Your task to perform on an android device: clear all cookies in the chrome app Image 0: 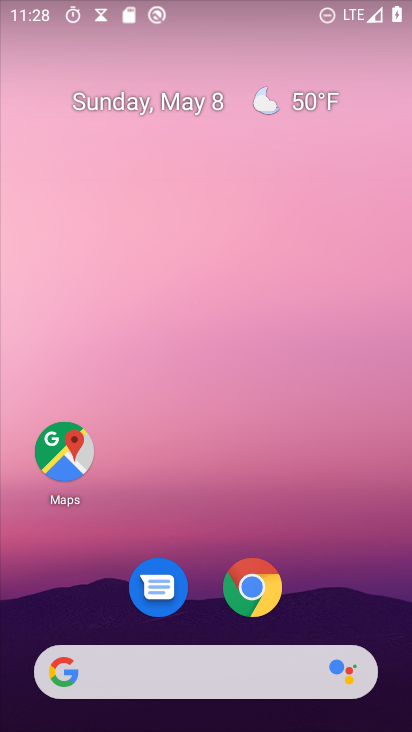
Step 0: click (256, 594)
Your task to perform on an android device: clear all cookies in the chrome app Image 1: 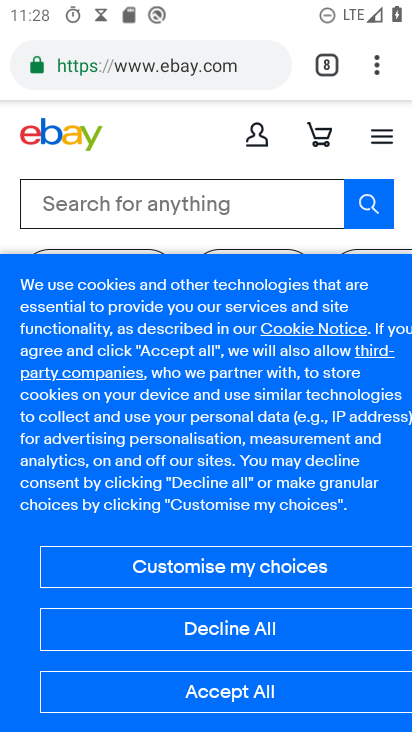
Step 1: drag from (376, 62) to (155, 364)
Your task to perform on an android device: clear all cookies in the chrome app Image 2: 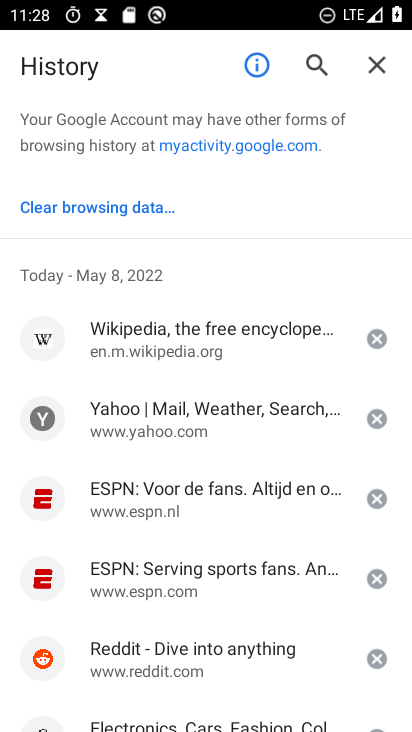
Step 2: click (85, 199)
Your task to perform on an android device: clear all cookies in the chrome app Image 3: 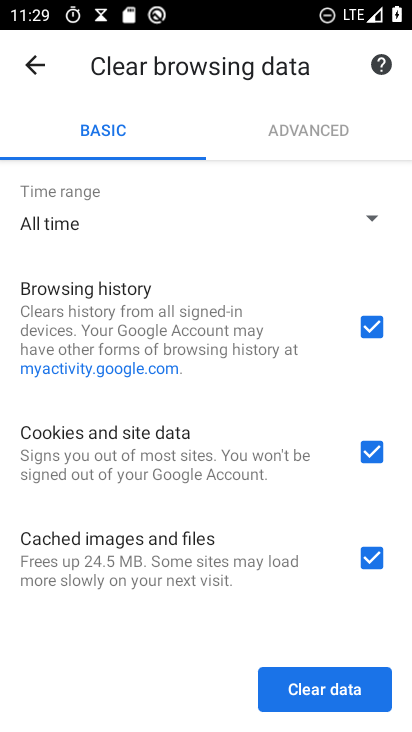
Step 3: click (361, 318)
Your task to perform on an android device: clear all cookies in the chrome app Image 4: 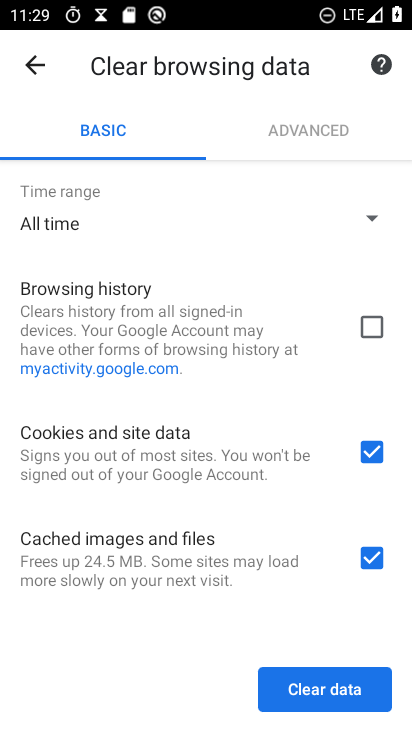
Step 4: click (380, 563)
Your task to perform on an android device: clear all cookies in the chrome app Image 5: 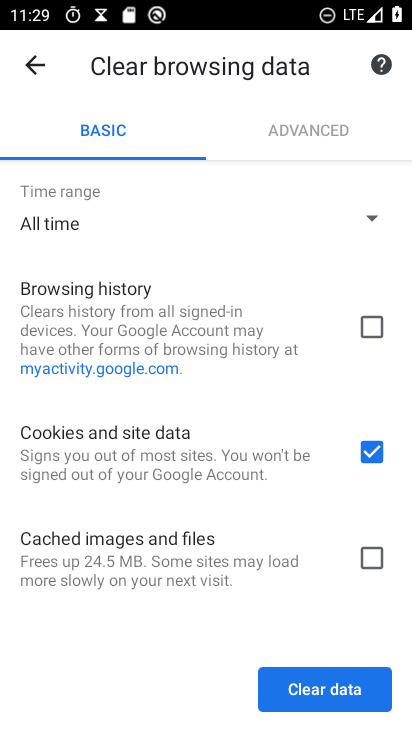
Step 5: click (318, 691)
Your task to perform on an android device: clear all cookies in the chrome app Image 6: 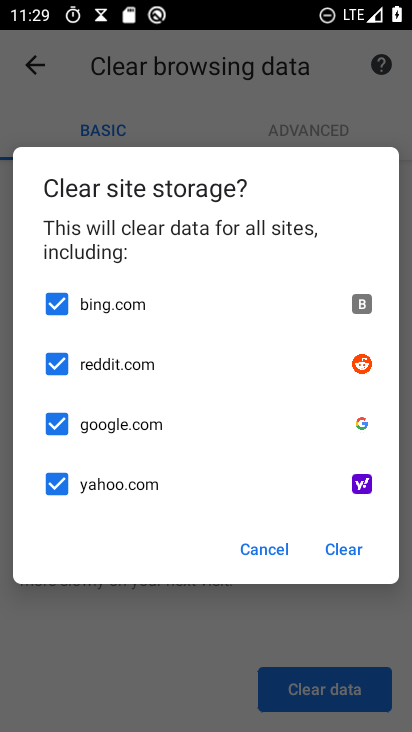
Step 6: click (342, 547)
Your task to perform on an android device: clear all cookies in the chrome app Image 7: 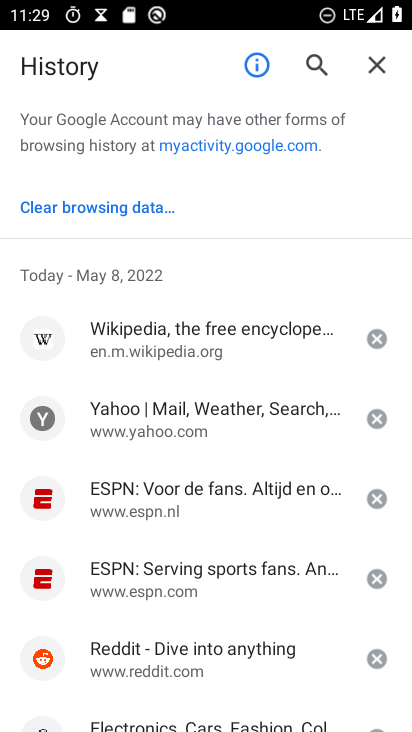
Step 7: task complete